Your task to perform on an android device: Open Google Maps and go to "Timeline" Image 0: 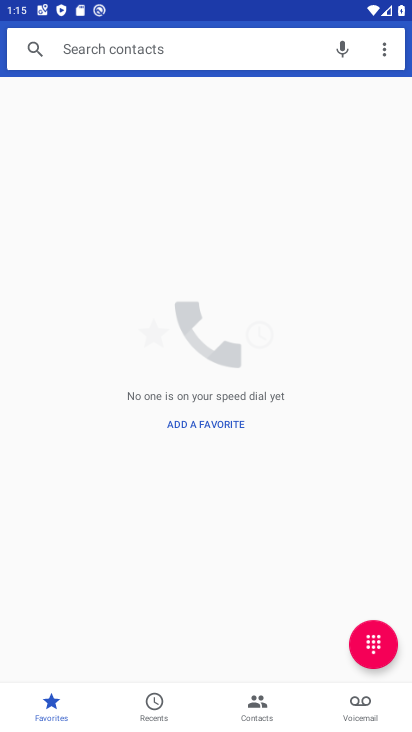
Step 0: press home button
Your task to perform on an android device: Open Google Maps and go to "Timeline" Image 1: 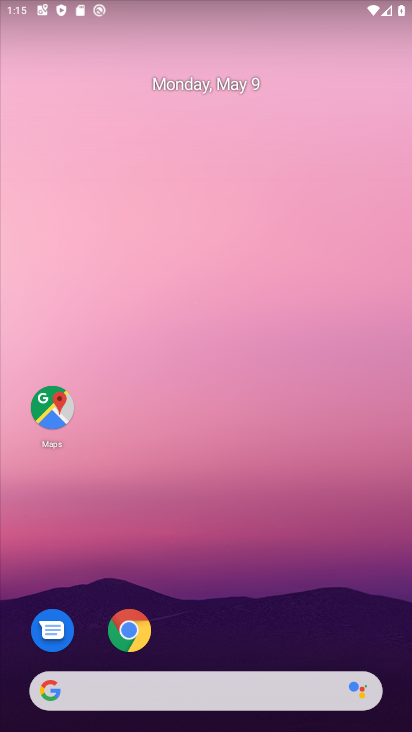
Step 1: drag from (248, 712) to (306, 318)
Your task to perform on an android device: Open Google Maps and go to "Timeline" Image 2: 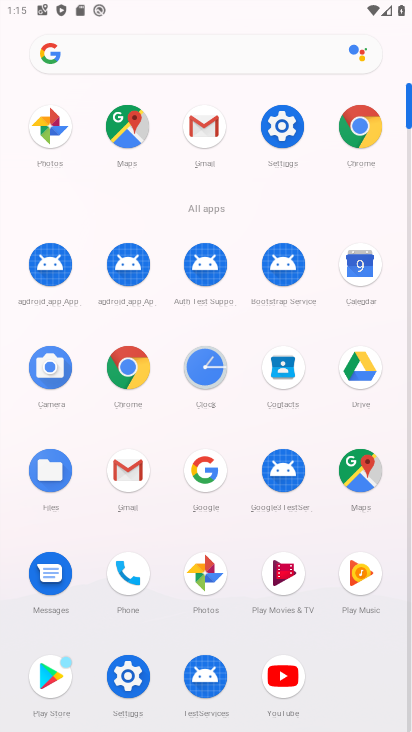
Step 2: click (130, 123)
Your task to perform on an android device: Open Google Maps and go to "Timeline" Image 3: 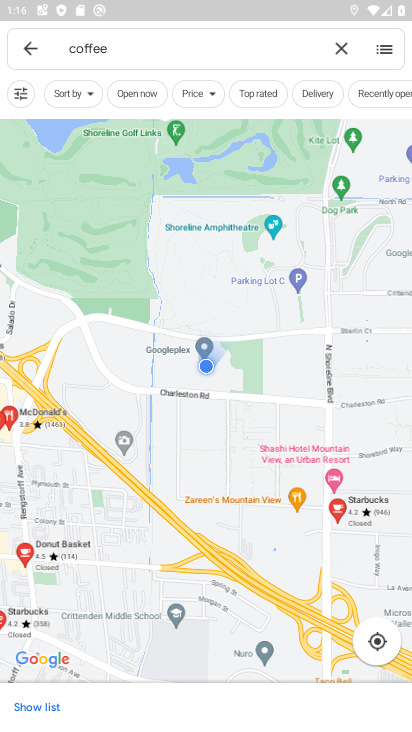
Step 3: click (22, 50)
Your task to perform on an android device: Open Google Maps and go to "Timeline" Image 4: 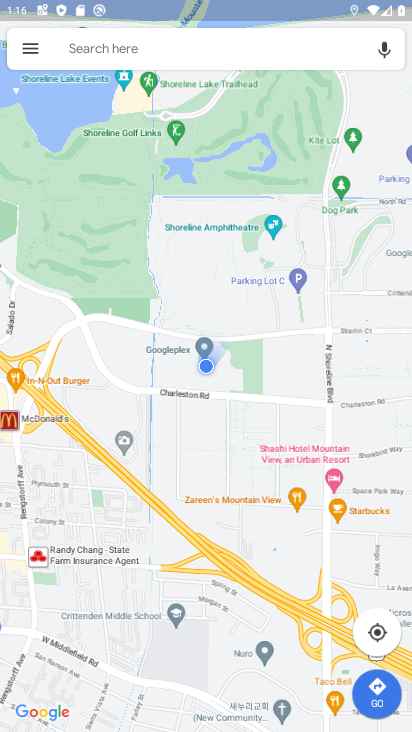
Step 4: click (31, 39)
Your task to perform on an android device: Open Google Maps and go to "Timeline" Image 5: 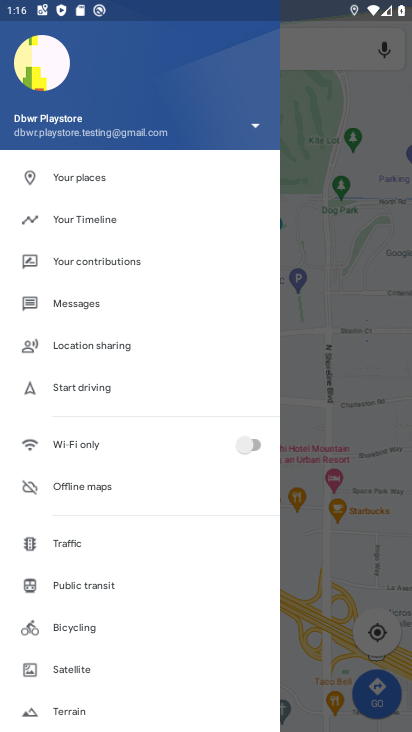
Step 5: click (97, 216)
Your task to perform on an android device: Open Google Maps and go to "Timeline" Image 6: 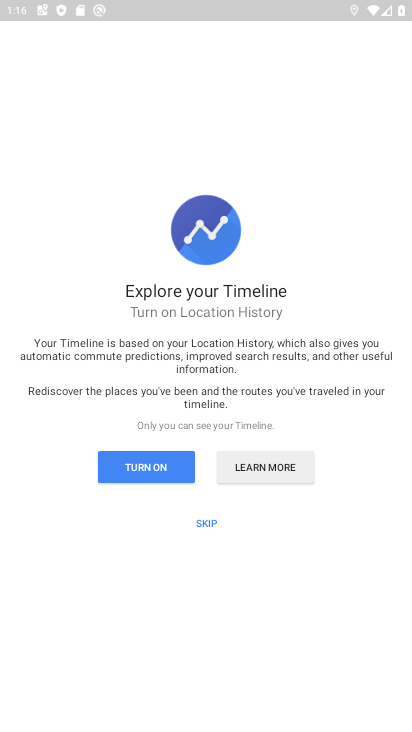
Step 6: click (197, 518)
Your task to perform on an android device: Open Google Maps and go to "Timeline" Image 7: 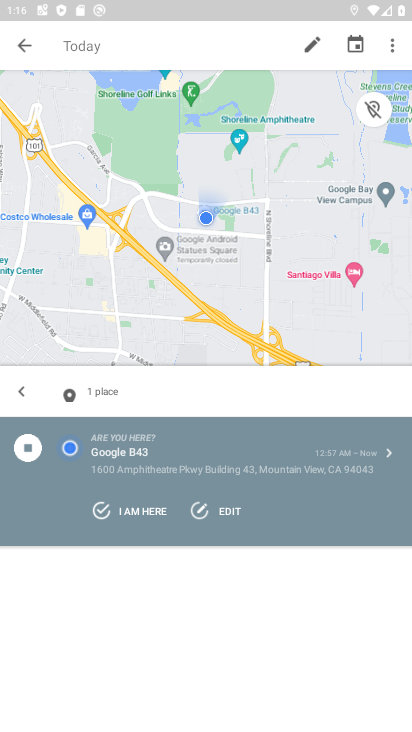
Step 7: task complete